Your task to perform on an android device: open a new tab in the chrome app Image 0: 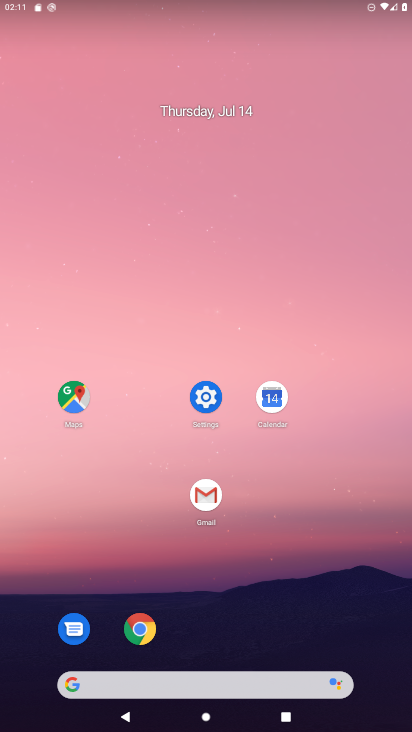
Step 0: click (145, 621)
Your task to perform on an android device: open a new tab in the chrome app Image 1: 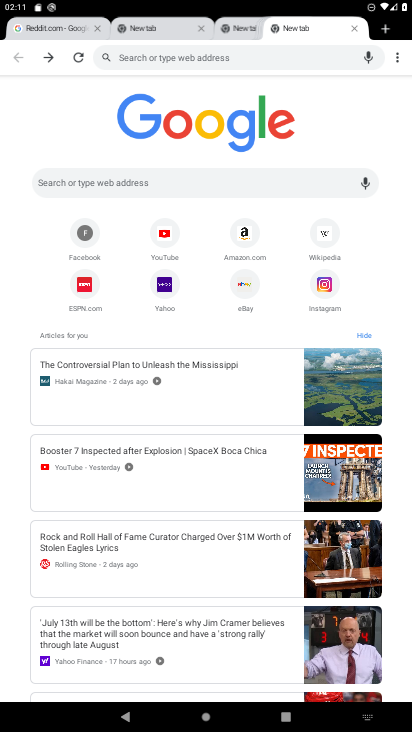
Step 1: click (401, 53)
Your task to perform on an android device: open a new tab in the chrome app Image 2: 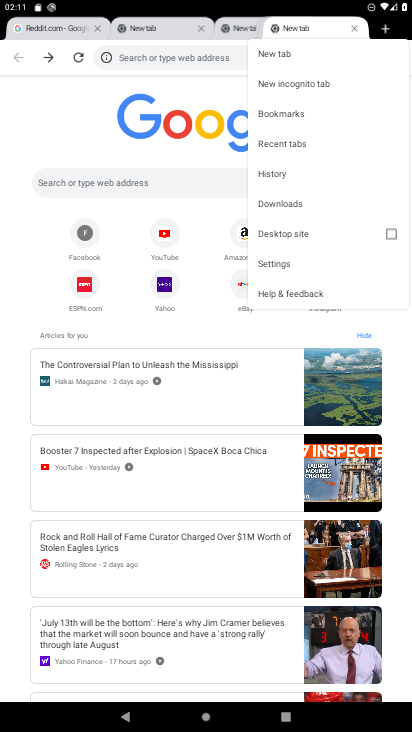
Step 2: click (278, 49)
Your task to perform on an android device: open a new tab in the chrome app Image 3: 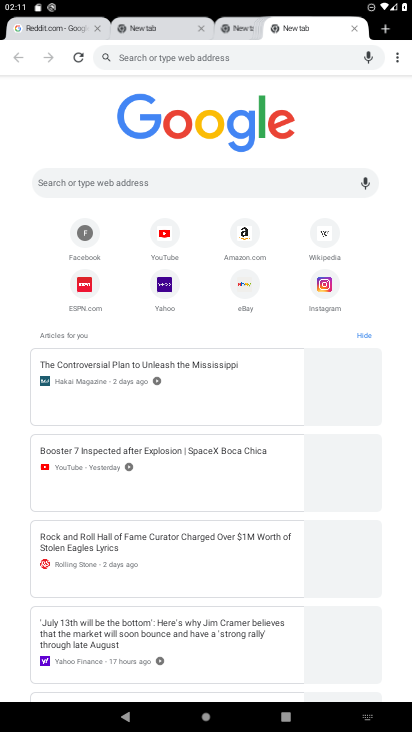
Step 3: task complete